Your task to perform on an android device: Show me productivity apps on the Play Store Image 0: 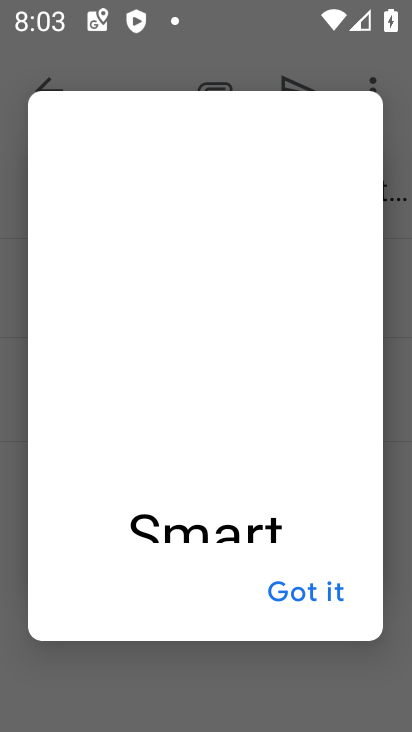
Step 0: press home button
Your task to perform on an android device: Show me productivity apps on the Play Store Image 1: 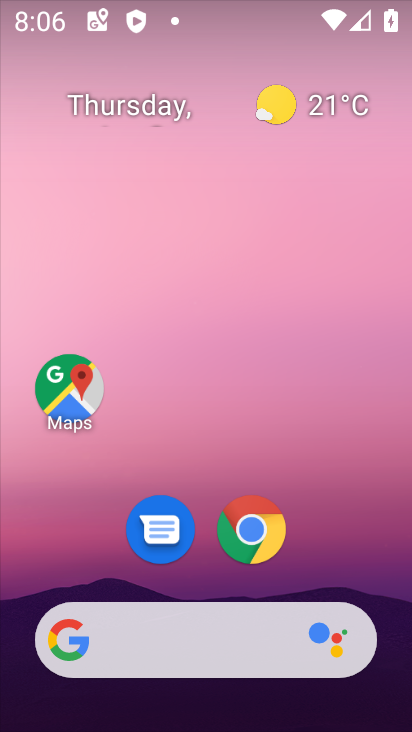
Step 1: drag from (269, 707) to (251, 0)
Your task to perform on an android device: Show me productivity apps on the Play Store Image 2: 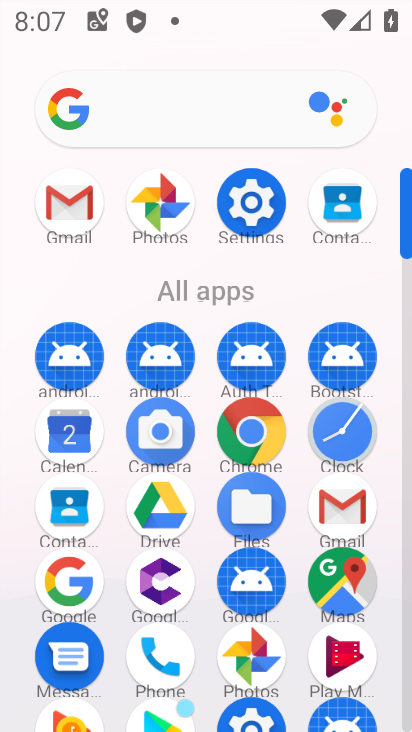
Step 2: click (160, 715)
Your task to perform on an android device: Show me productivity apps on the Play Store Image 3: 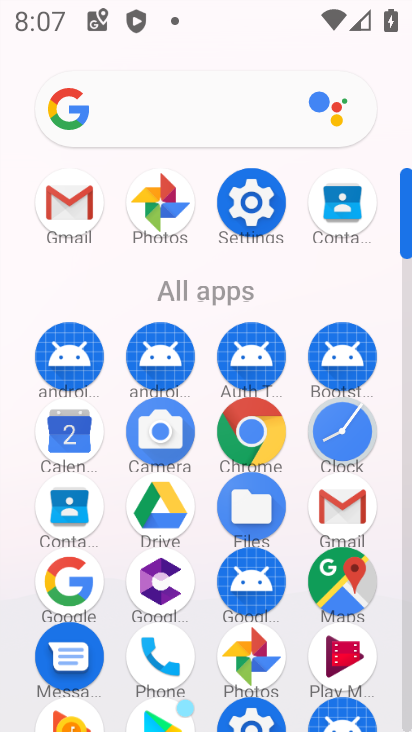
Step 3: click (160, 715)
Your task to perform on an android device: Show me productivity apps on the Play Store Image 4: 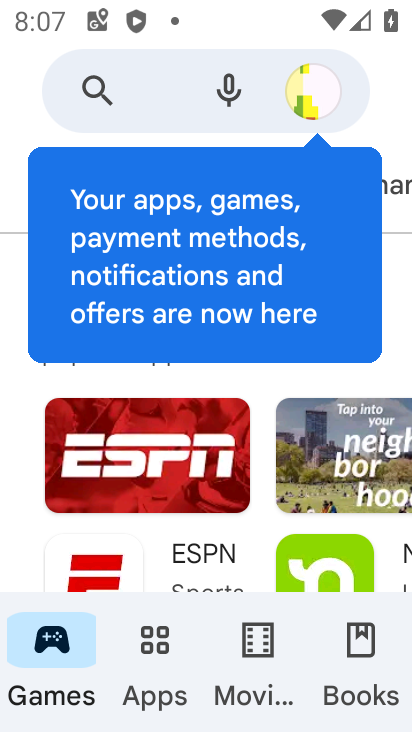
Step 4: click (136, 657)
Your task to perform on an android device: Show me productivity apps on the Play Store Image 5: 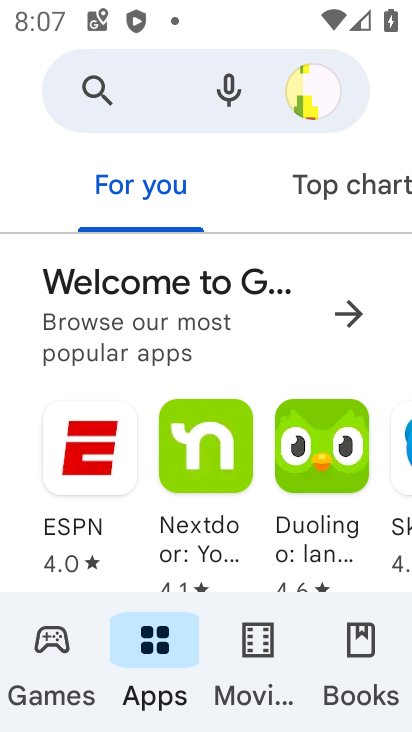
Step 5: drag from (334, 206) to (50, 253)
Your task to perform on an android device: Show me productivity apps on the Play Store Image 6: 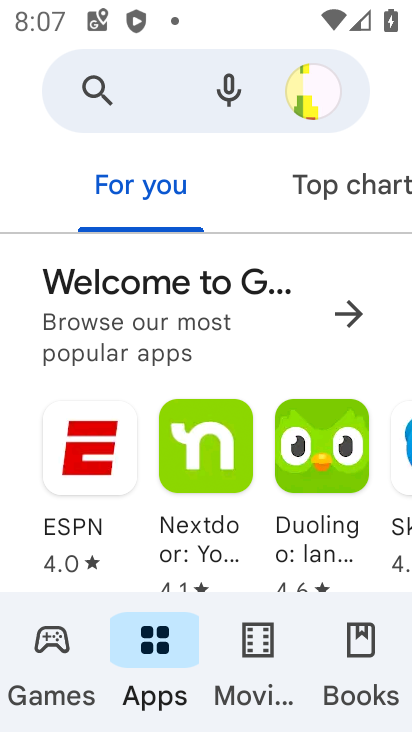
Step 6: drag from (380, 175) to (23, 266)
Your task to perform on an android device: Show me productivity apps on the Play Store Image 7: 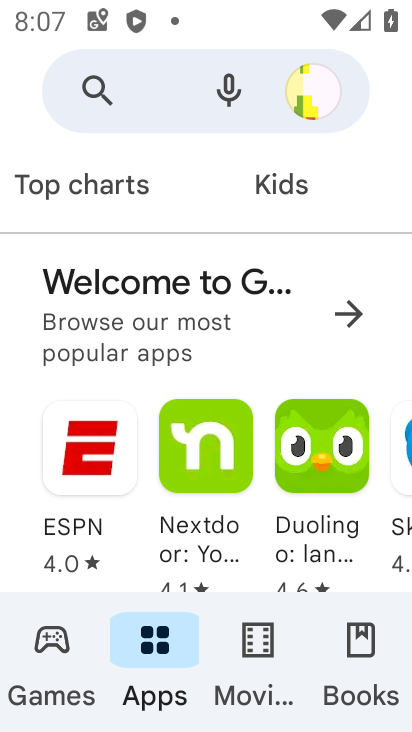
Step 7: drag from (362, 223) to (13, 245)
Your task to perform on an android device: Show me productivity apps on the Play Store Image 8: 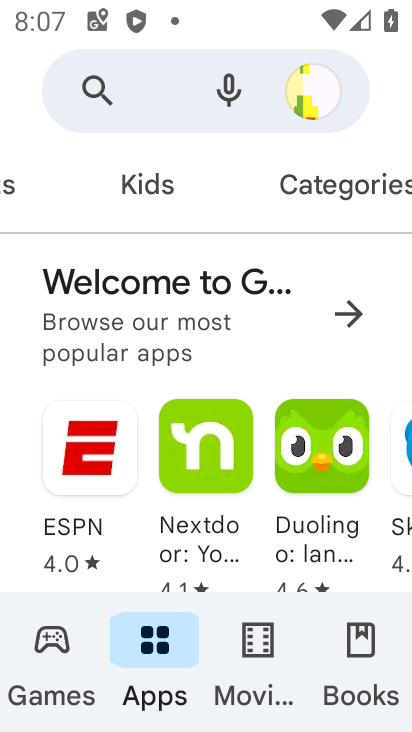
Step 8: click (337, 175)
Your task to perform on an android device: Show me productivity apps on the Play Store Image 9: 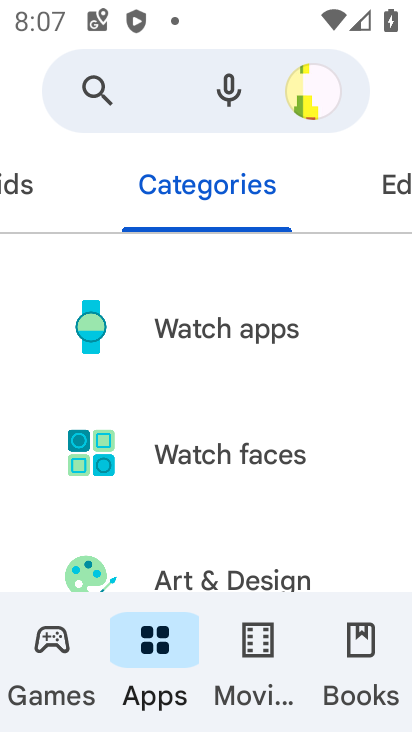
Step 9: drag from (258, 507) to (235, 95)
Your task to perform on an android device: Show me productivity apps on the Play Store Image 10: 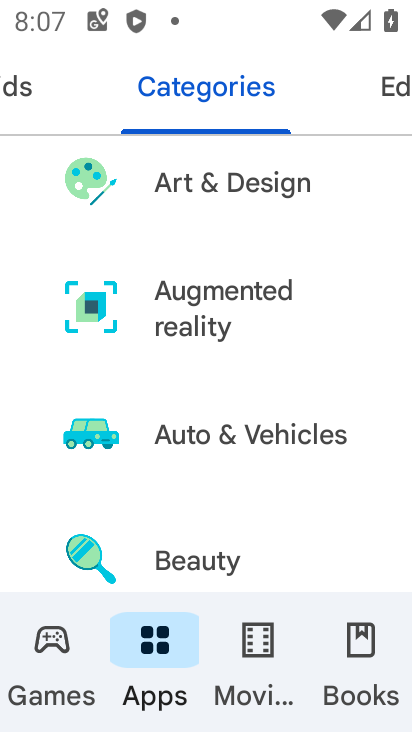
Step 10: drag from (281, 507) to (358, 122)
Your task to perform on an android device: Show me productivity apps on the Play Store Image 11: 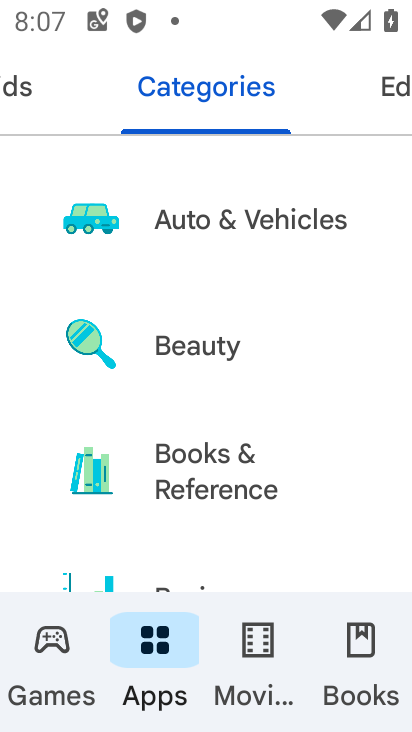
Step 11: drag from (254, 442) to (243, 38)
Your task to perform on an android device: Show me productivity apps on the Play Store Image 12: 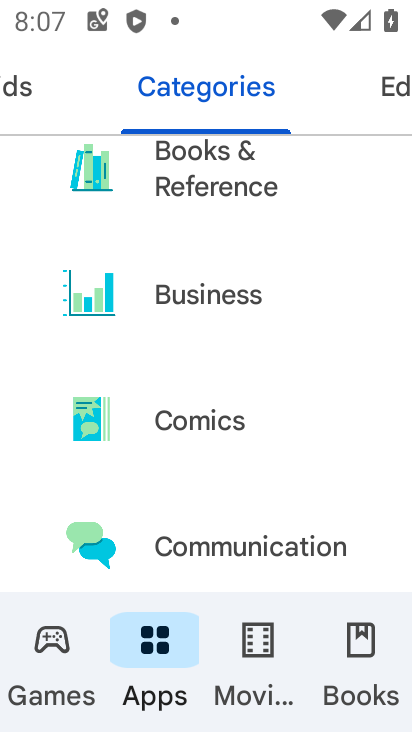
Step 12: drag from (272, 442) to (294, 114)
Your task to perform on an android device: Show me productivity apps on the Play Store Image 13: 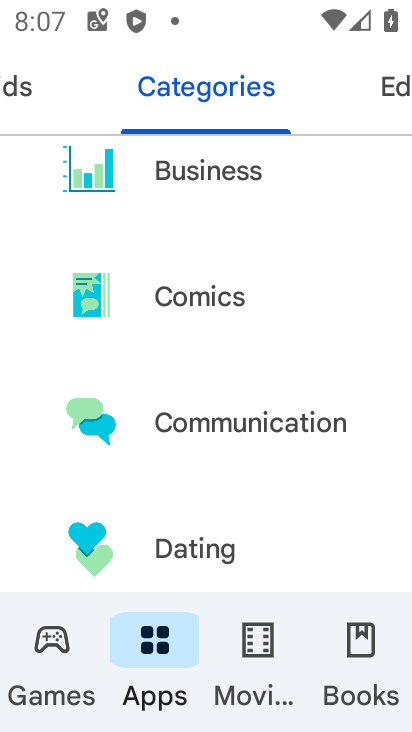
Step 13: drag from (230, 389) to (246, 122)
Your task to perform on an android device: Show me productivity apps on the Play Store Image 14: 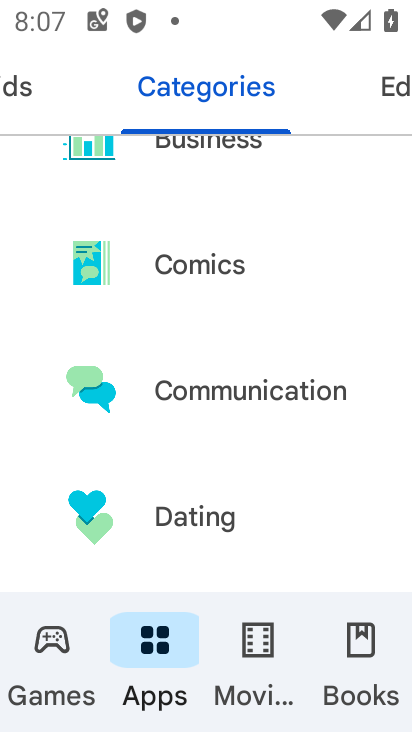
Step 14: drag from (237, 473) to (221, 75)
Your task to perform on an android device: Show me productivity apps on the Play Store Image 15: 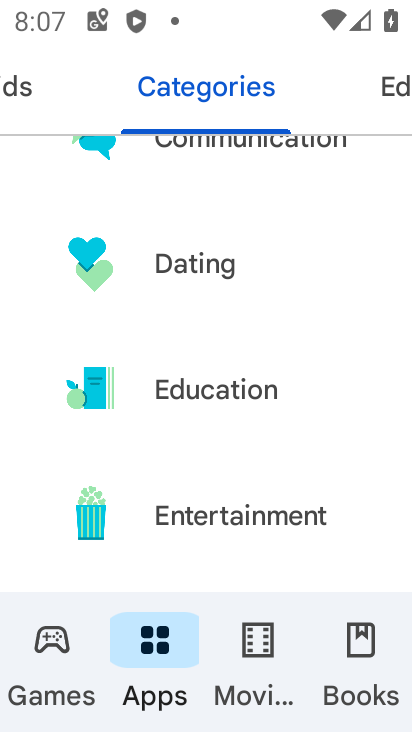
Step 15: drag from (283, 556) to (316, 60)
Your task to perform on an android device: Show me productivity apps on the Play Store Image 16: 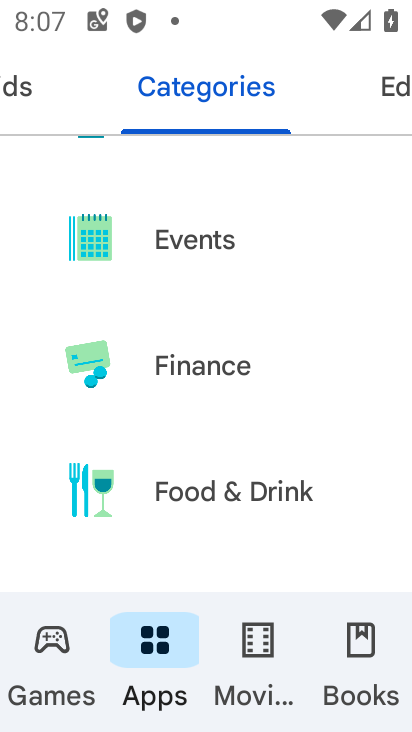
Step 16: drag from (290, 473) to (303, 45)
Your task to perform on an android device: Show me productivity apps on the Play Store Image 17: 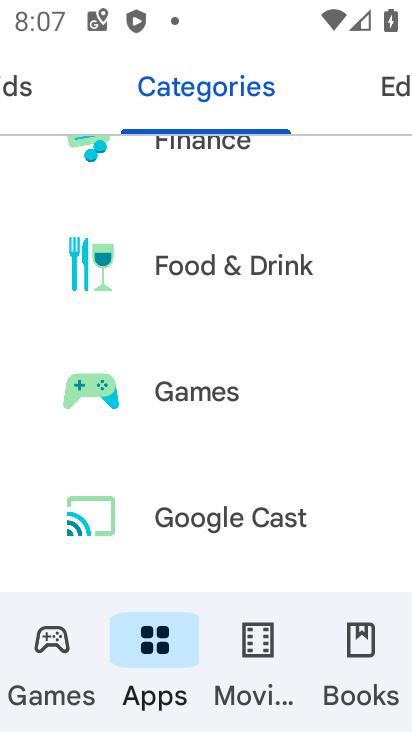
Step 17: drag from (306, 515) to (317, 16)
Your task to perform on an android device: Show me productivity apps on the Play Store Image 18: 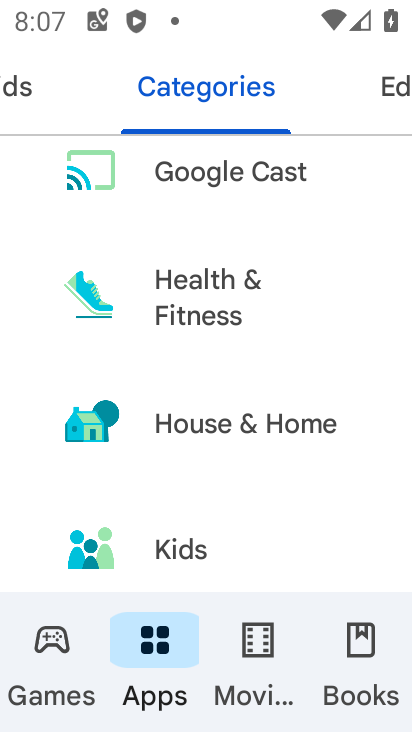
Step 18: drag from (274, 485) to (315, 99)
Your task to perform on an android device: Show me productivity apps on the Play Store Image 19: 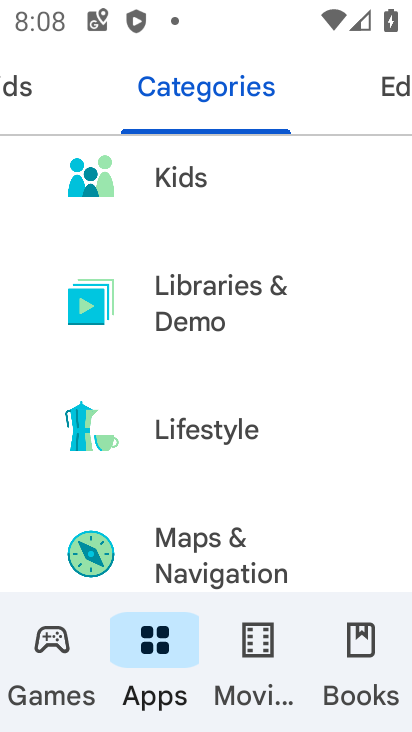
Step 19: drag from (261, 473) to (336, 34)
Your task to perform on an android device: Show me productivity apps on the Play Store Image 20: 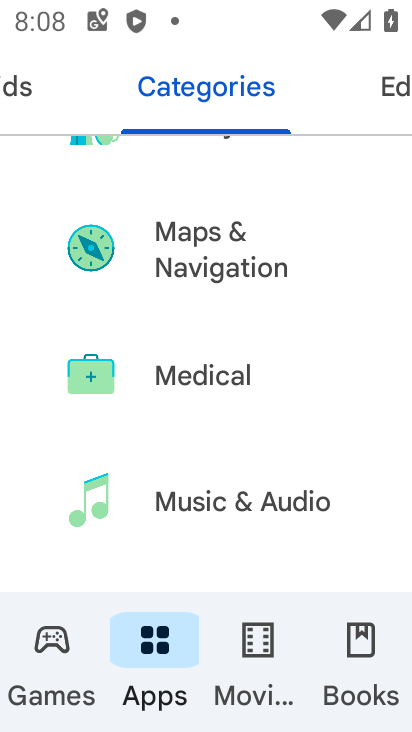
Step 20: drag from (302, 519) to (307, 7)
Your task to perform on an android device: Show me productivity apps on the Play Store Image 21: 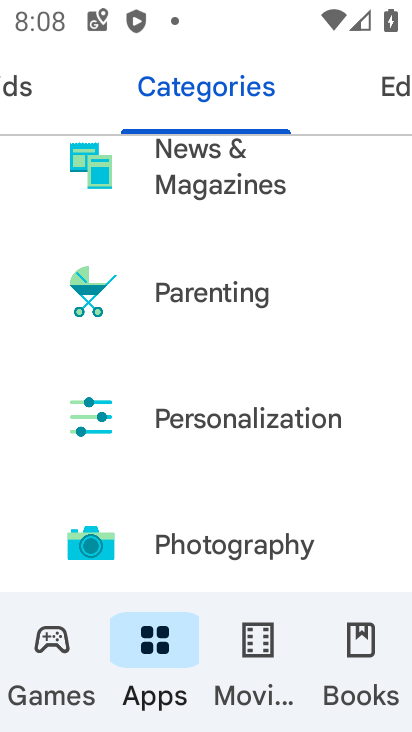
Step 21: drag from (343, 545) to (334, 146)
Your task to perform on an android device: Show me productivity apps on the Play Store Image 22: 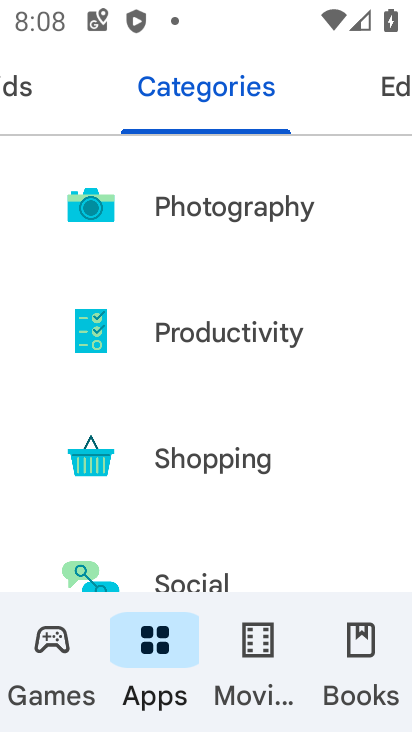
Step 22: click (264, 338)
Your task to perform on an android device: Show me productivity apps on the Play Store Image 23: 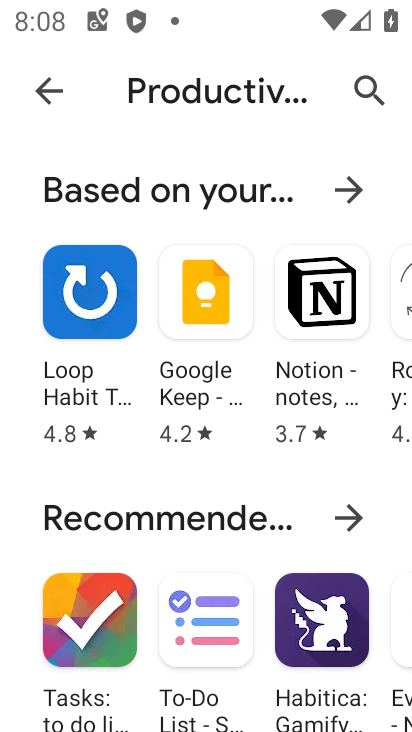
Step 23: task complete